Your task to perform on an android device: Open calendar and show me the third week of next month Image 0: 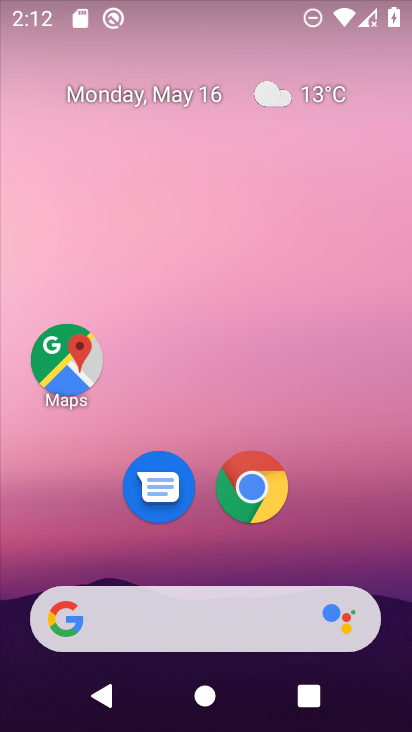
Step 0: drag from (395, 581) to (405, 242)
Your task to perform on an android device: Open calendar and show me the third week of next month Image 1: 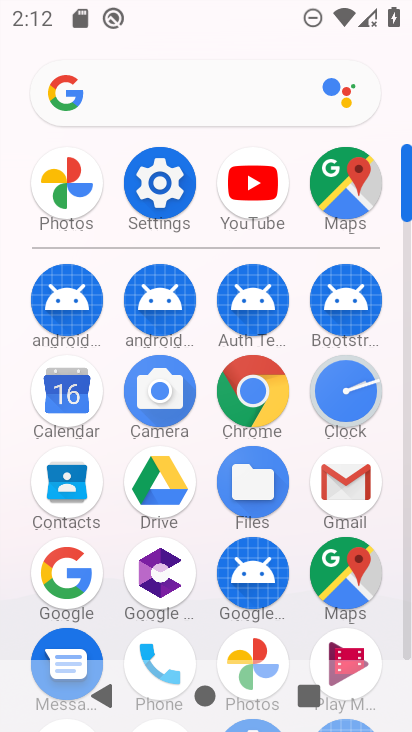
Step 1: click (55, 407)
Your task to perform on an android device: Open calendar and show me the third week of next month Image 2: 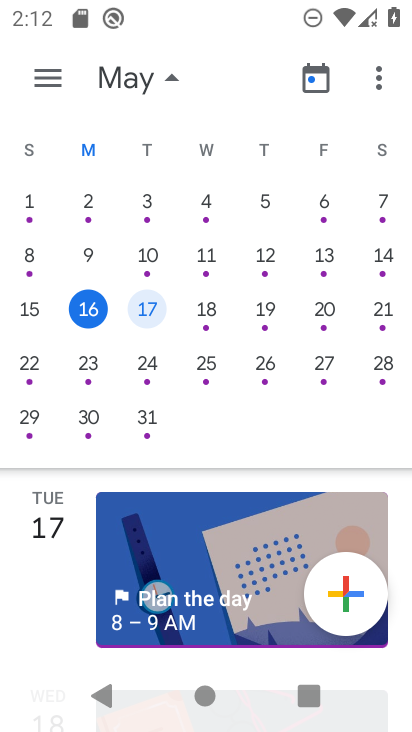
Step 2: drag from (405, 272) to (174, 235)
Your task to perform on an android device: Open calendar and show me the third week of next month Image 3: 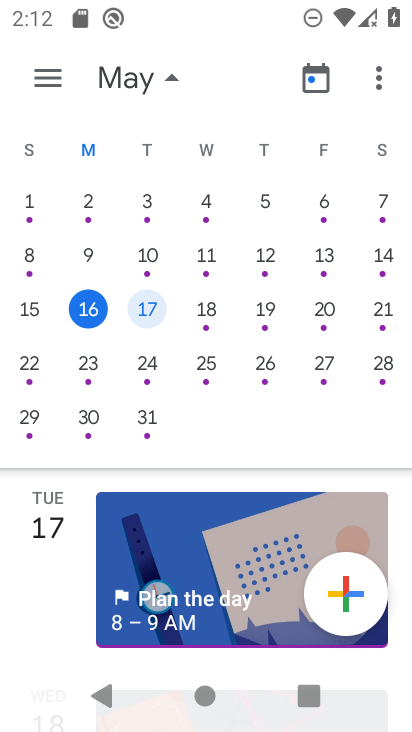
Step 3: drag from (398, 220) to (275, 210)
Your task to perform on an android device: Open calendar and show me the third week of next month Image 4: 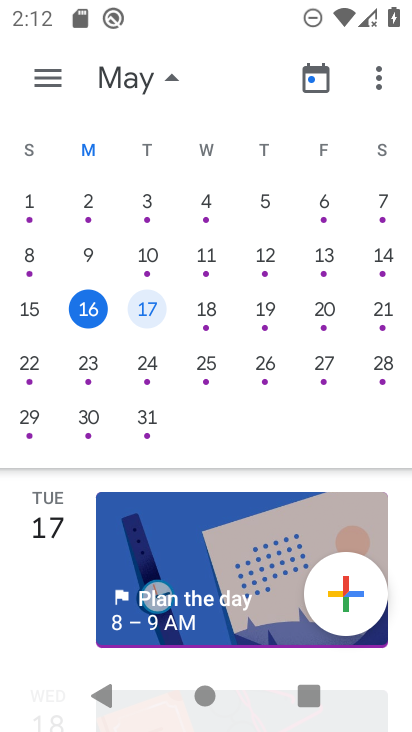
Step 4: drag from (403, 227) to (56, 166)
Your task to perform on an android device: Open calendar and show me the third week of next month Image 5: 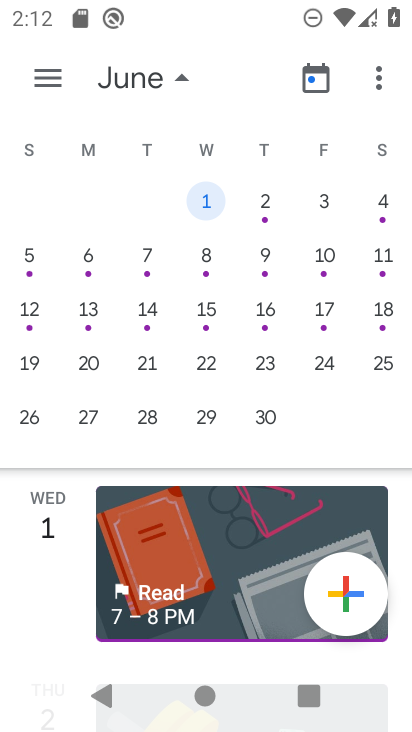
Step 5: click (204, 311)
Your task to perform on an android device: Open calendar and show me the third week of next month Image 6: 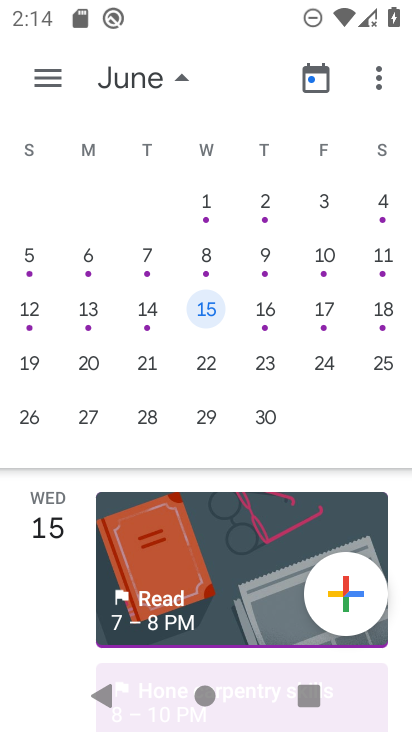
Step 6: task complete